Your task to perform on an android device: change notification settings in the gmail app Image 0: 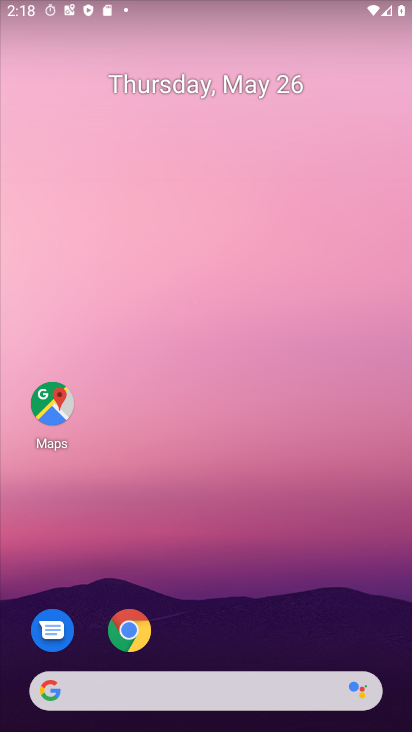
Step 0: drag from (235, 622) to (230, 189)
Your task to perform on an android device: change notification settings in the gmail app Image 1: 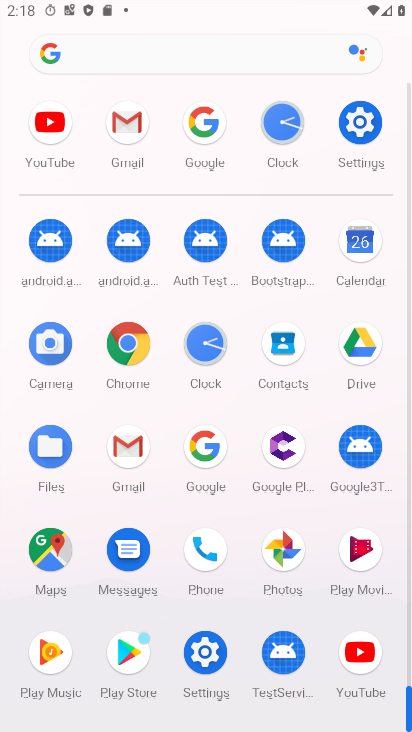
Step 1: click (127, 132)
Your task to perform on an android device: change notification settings in the gmail app Image 2: 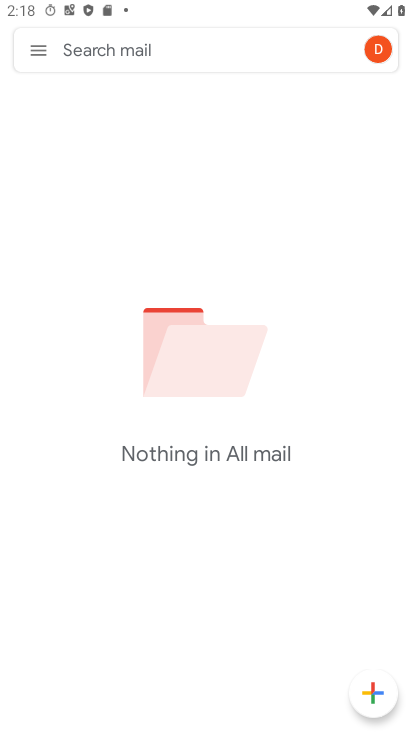
Step 2: click (52, 52)
Your task to perform on an android device: change notification settings in the gmail app Image 3: 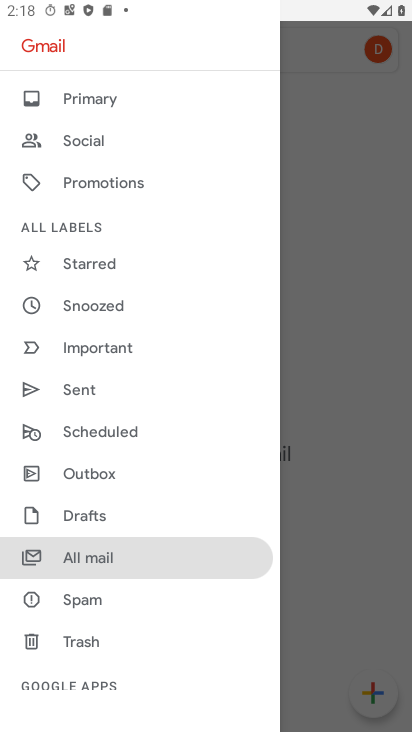
Step 3: drag from (98, 638) to (119, 217)
Your task to perform on an android device: change notification settings in the gmail app Image 4: 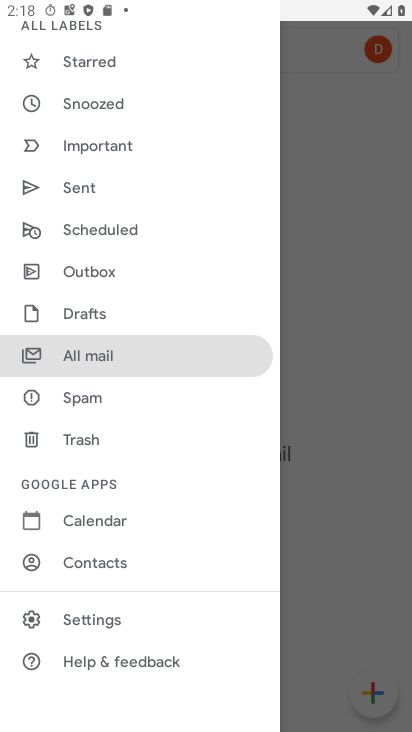
Step 4: click (111, 601)
Your task to perform on an android device: change notification settings in the gmail app Image 5: 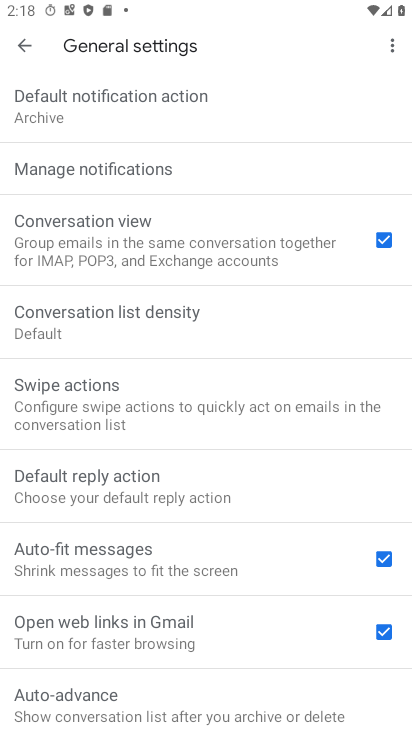
Step 5: click (158, 169)
Your task to perform on an android device: change notification settings in the gmail app Image 6: 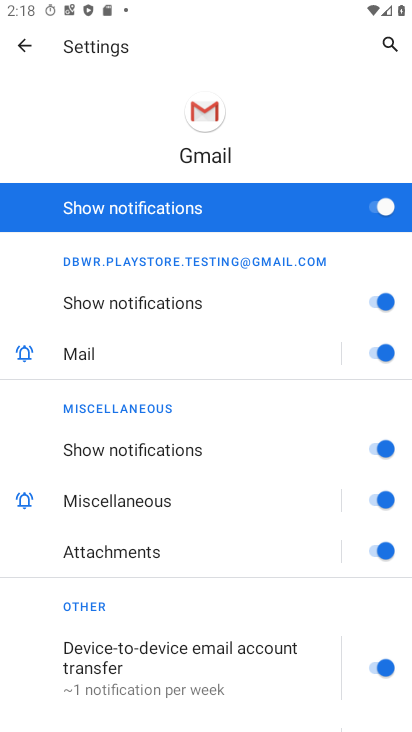
Step 6: click (379, 444)
Your task to perform on an android device: change notification settings in the gmail app Image 7: 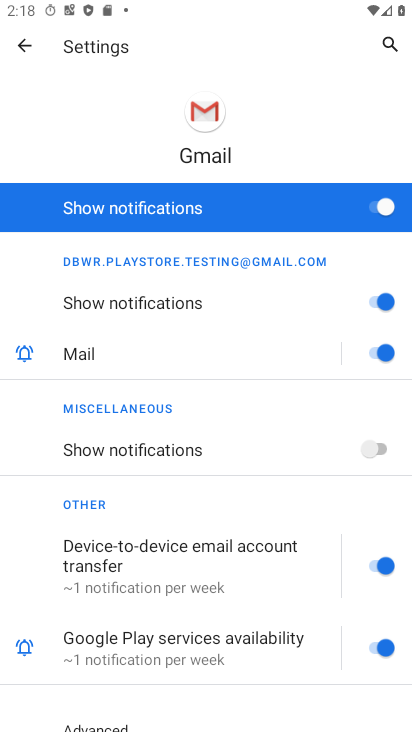
Step 7: drag from (236, 636) to (250, 361)
Your task to perform on an android device: change notification settings in the gmail app Image 8: 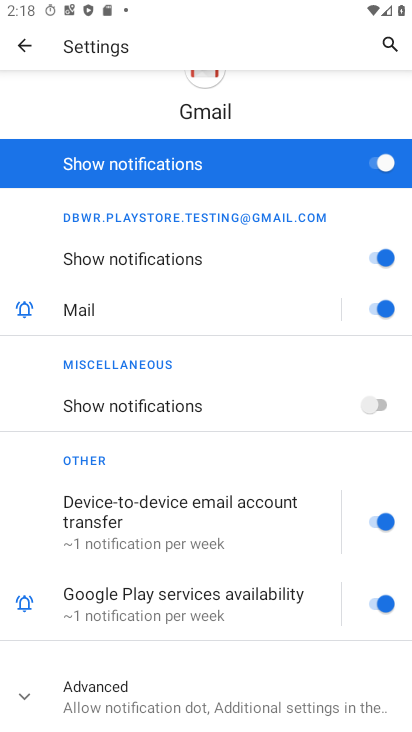
Step 8: click (323, 706)
Your task to perform on an android device: change notification settings in the gmail app Image 9: 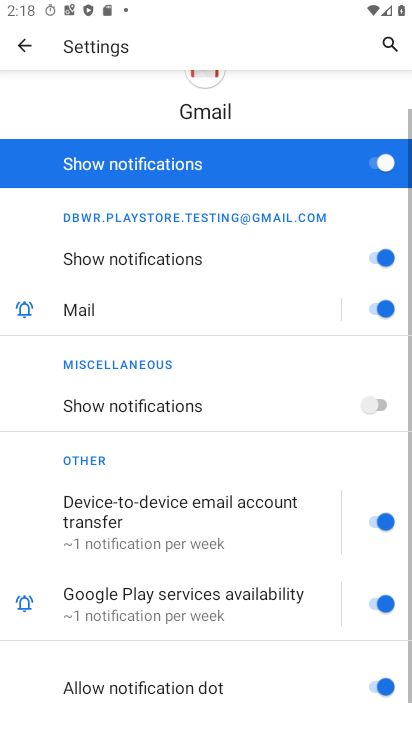
Step 9: drag from (317, 693) to (326, 311)
Your task to perform on an android device: change notification settings in the gmail app Image 10: 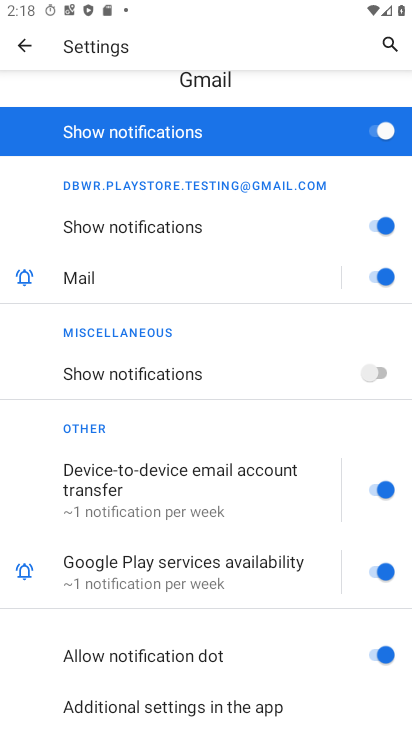
Step 10: click (373, 701)
Your task to perform on an android device: change notification settings in the gmail app Image 11: 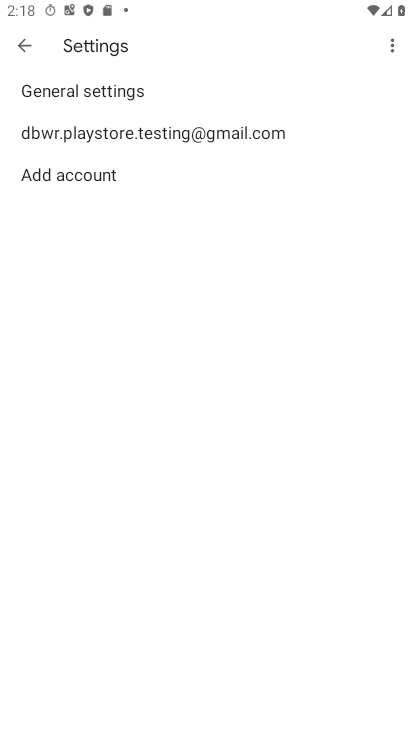
Step 11: click (335, 75)
Your task to perform on an android device: change notification settings in the gmail app Image 12: 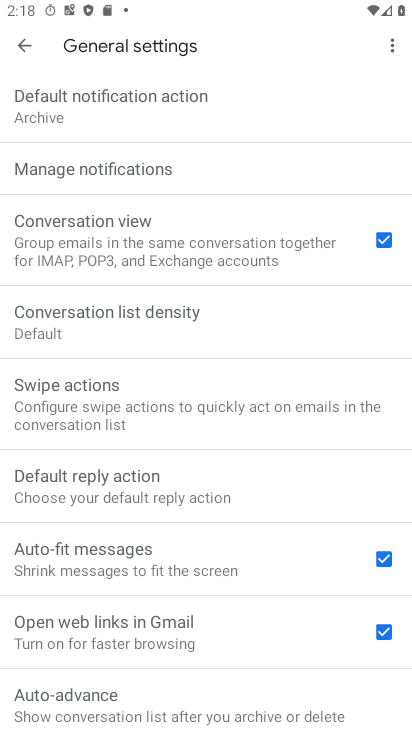
Step 12: click (378, 178)
Your task to perform on an android device: change notification settings in the gmail app Image 13: 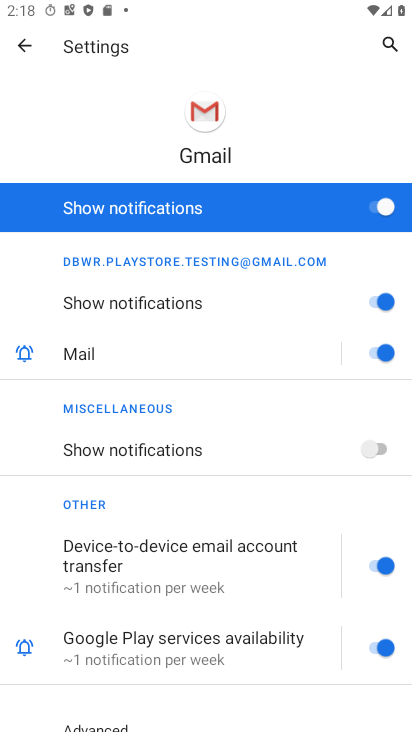
Step 13: click (403, 287)
Your task to perform on an android device: change notification settings in the gmail app Image 14: 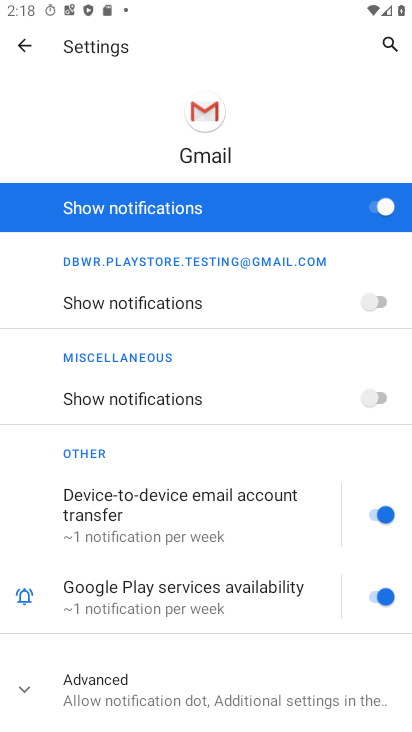
Step 14: task complete